Your task to perform on an android device: add a contact Image 0: 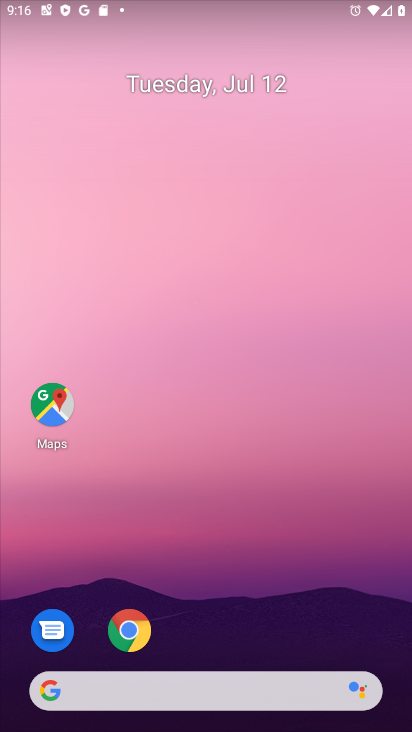
Step 0: drag from (178, 614) to (158, 131)
Your task to perform on an android device: add a contact Image 1: 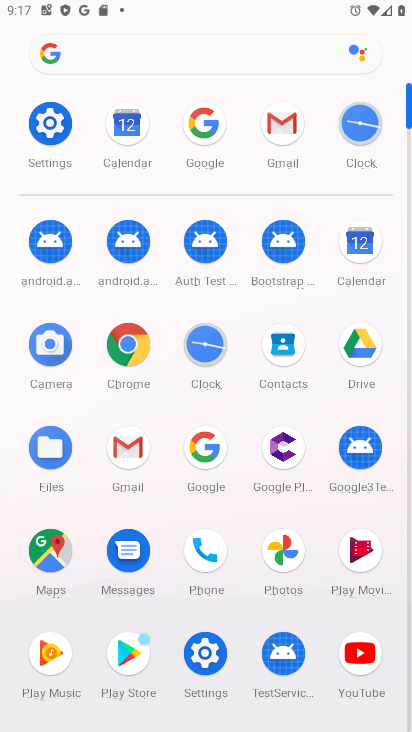
Step 1: click (285, 340)
Your task to perform on an android device: add a contact Image 2: 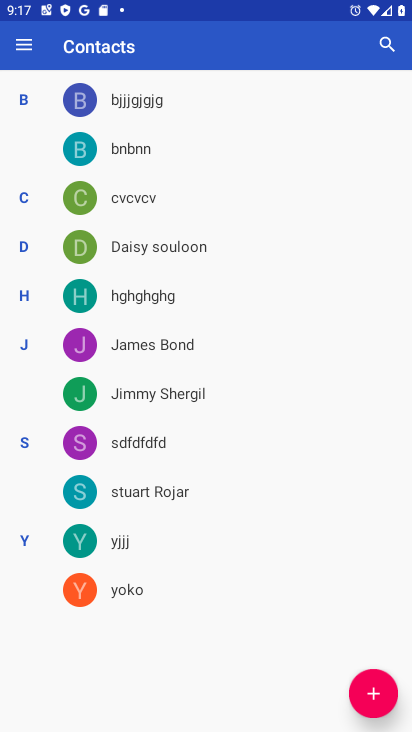
Step 2: click (375, 692)
Your task to perform on an android device: add a contact Image 3: 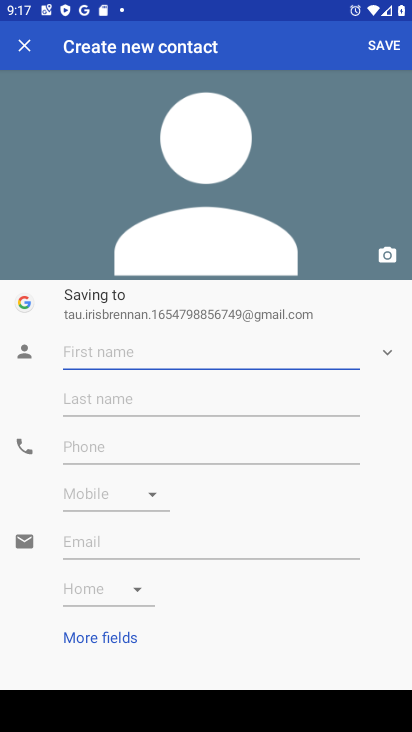
Step 3: type "jhwejfww"
Your task to perform on an android device: add a contact Image 4: 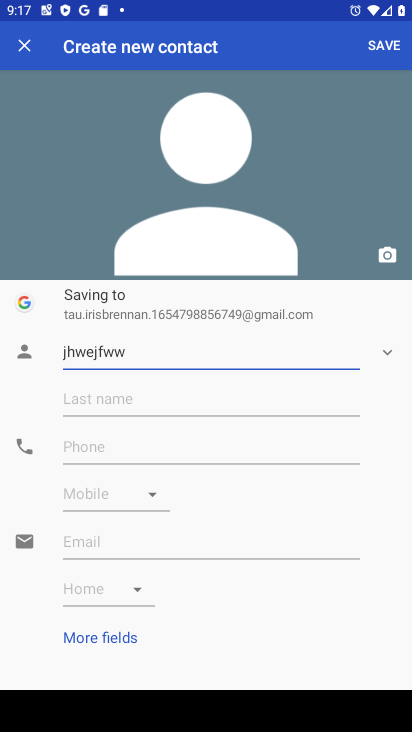
Step 4: drag from (255, 536) to (287, 370)
Your task to perform on an android device: add a contact Image 5: 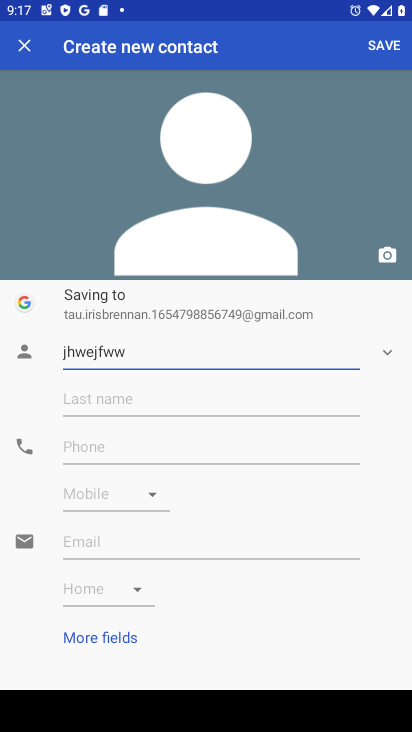
Step 5: click (93, 491)
Your task to perform on an android device: add a contact Image 6: 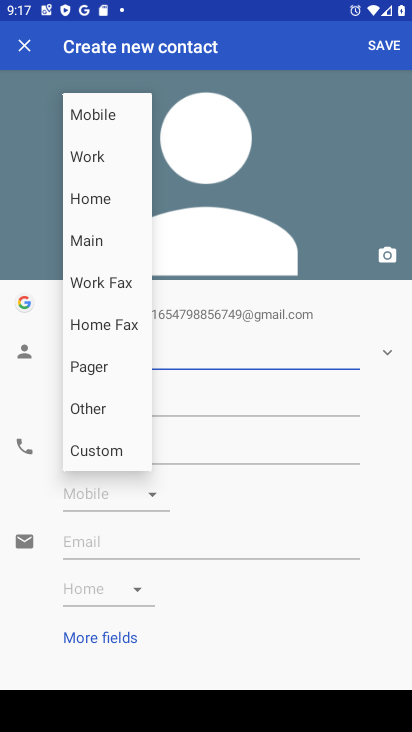
Step 6: click (215, 497)
Your task to perform on an android device: add a contact Image 7: 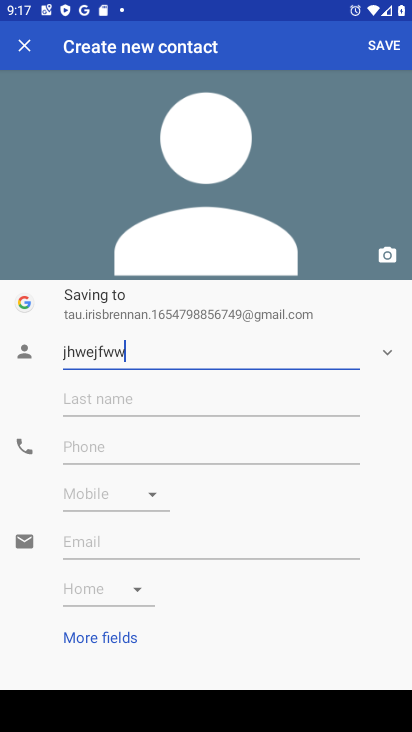
Step 7: click (166, 450)
Your task to perform on an android device: add a contact Image 8: 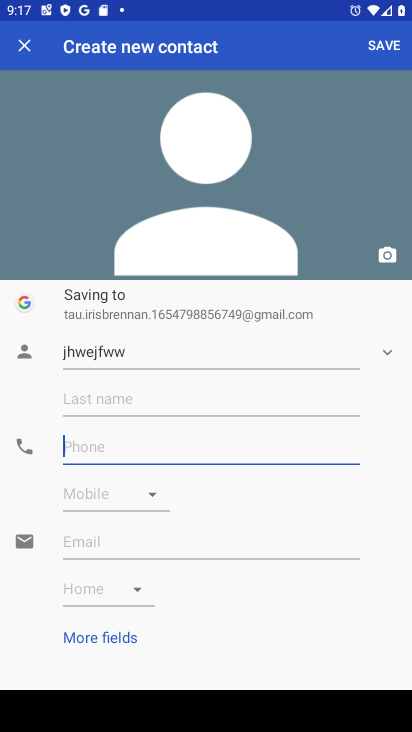
Step 8: type "873278r783"
Your task to perform on an android device: add a contact Image 9: 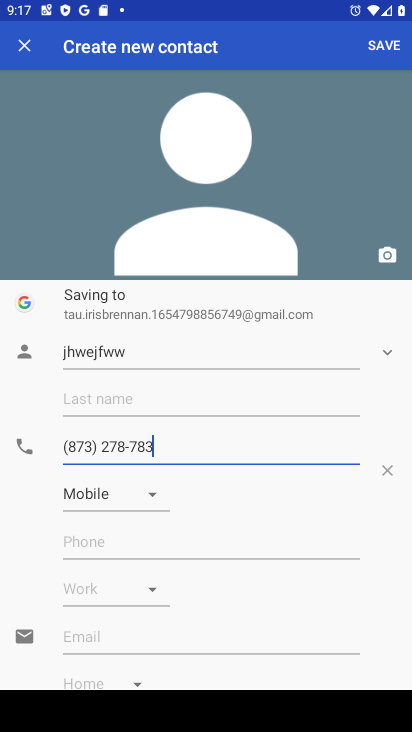
Step 9: click (375, 52)
Your task to perform on an android device: add a contact Image 10: 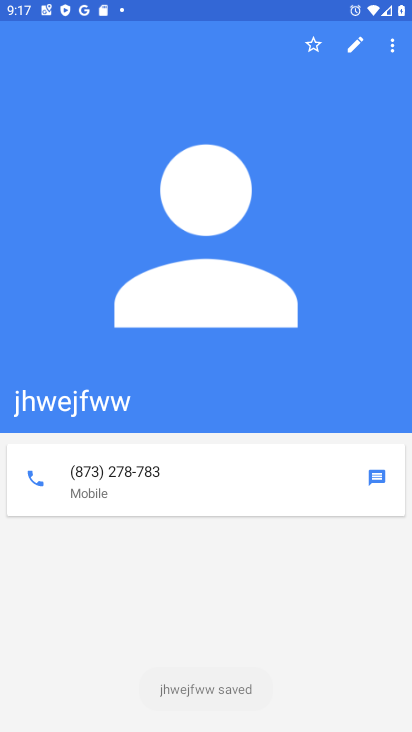
Step 10: task complete